Your task to perform on an android device: Open Chrome and go to settings Image 0: 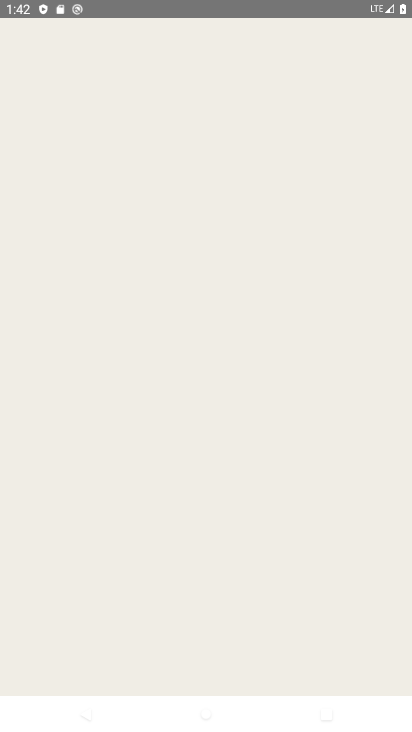
Step 0: press home button
Your task to perform on an android device: Open Chrome and go to settings Image 1: 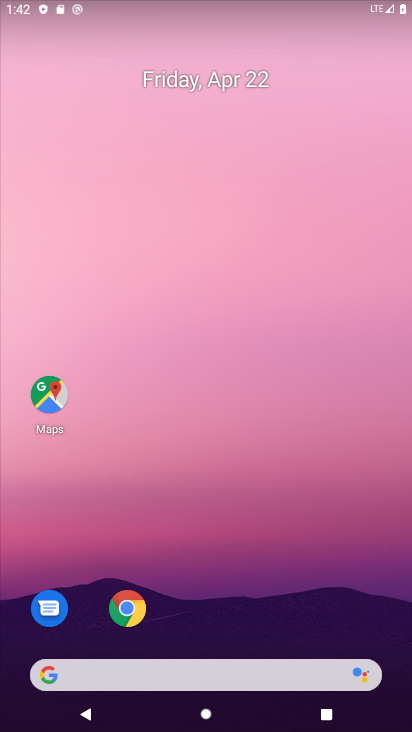
Step 1: drag from (268, 702) to (282, 168)
Your task to perform on an android device: Open Chrome and go to settings Image 2: 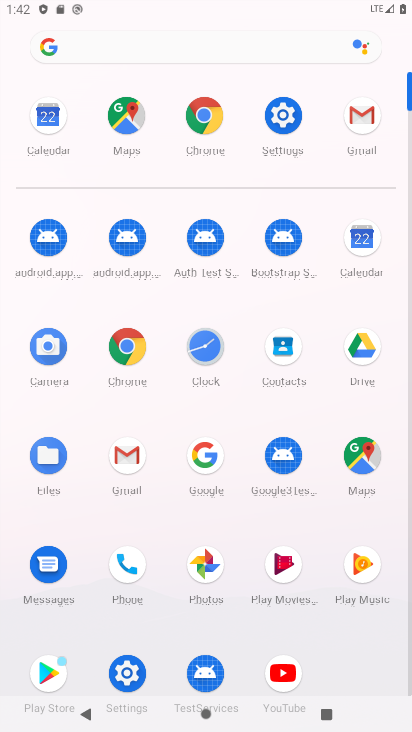
Step 2: click (197, 132)
Your task to perform on an android device: Open Chrome and go to settings Image 3: 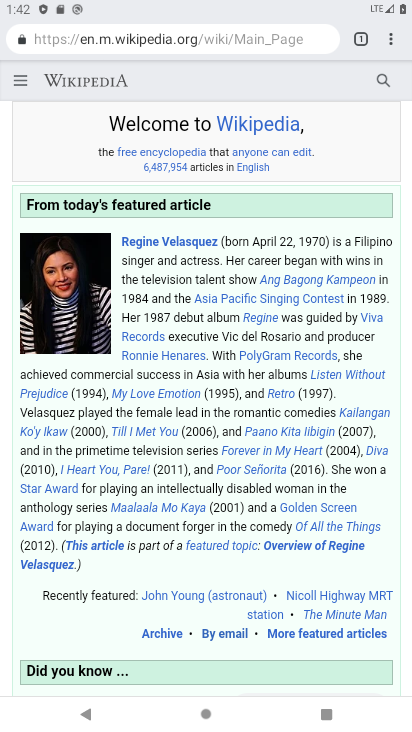
Step 3: click (391, 40)
Your task to perform on an android device: Open Chrome and go to settings Image 4: 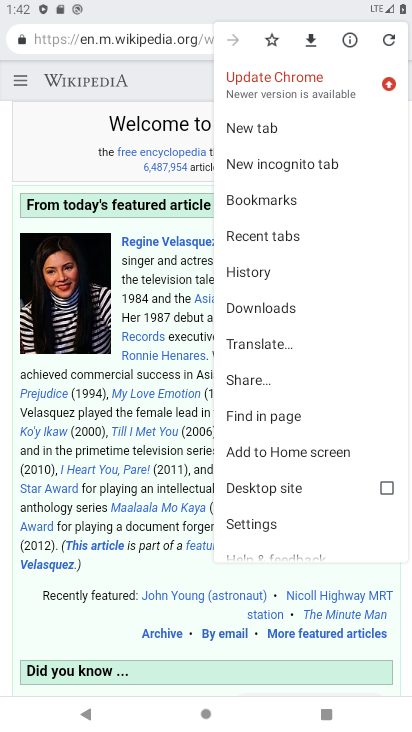
Step 4: click (260, 525)
Your task to perform on an android device: Open Chrome and go to settings Image 5: 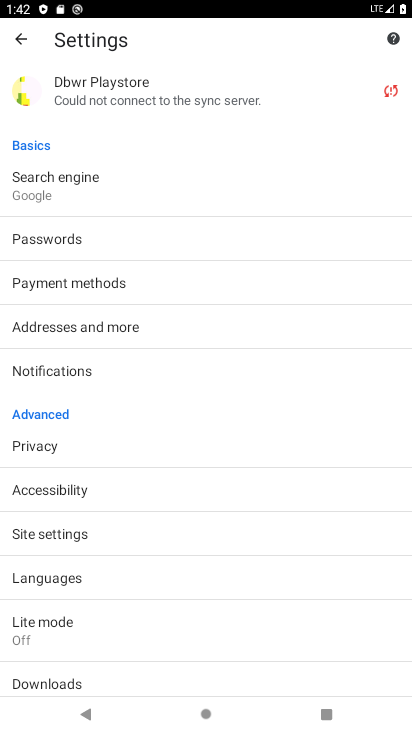
Step 5: task complete